Your task to perform on an android device: Open Google Image 0: 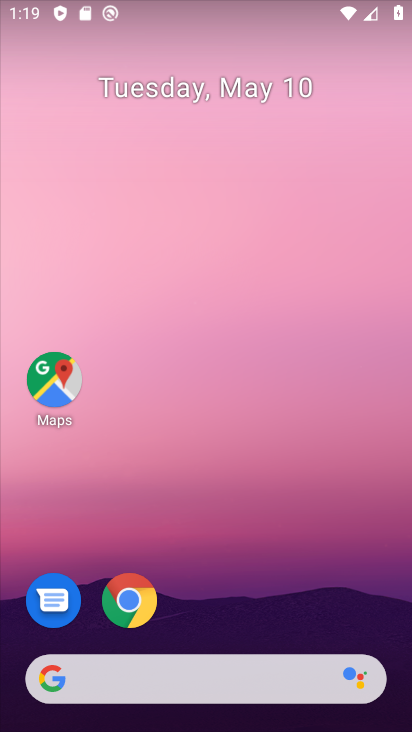
Step 0: drag from (235, 600) to (215, 249)
Your task to perform on an android device: Open Google Image 1: 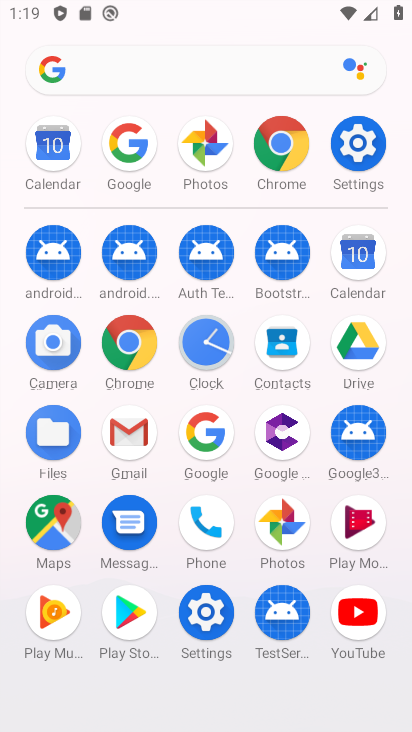
Step 1: click (208, 447)
Your task to perform on an android device: Open Google Image 2: 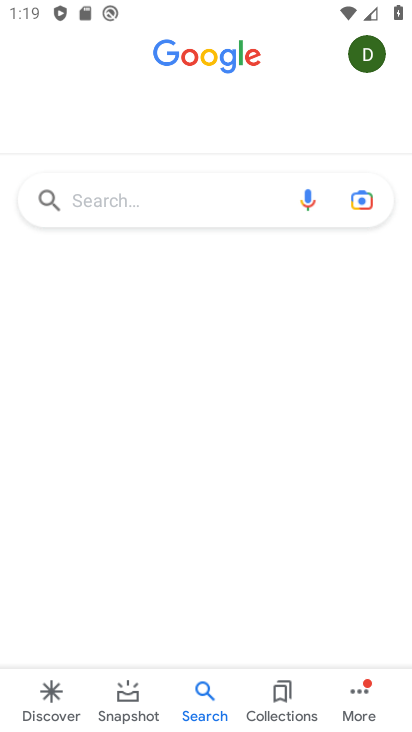
Step 2: task complete